Your task to perform on an android device: open app "McDonald's" Image 0: 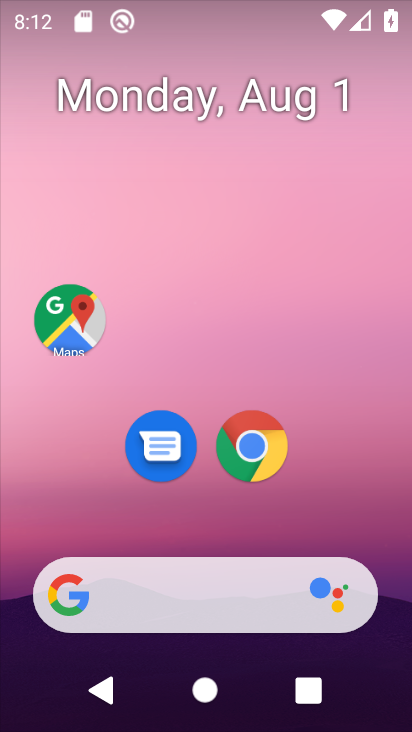
Step 0: drag from (182, 539) to (197, 167)
Your task to perform on an android device: open app "McDonald's" Image 1: 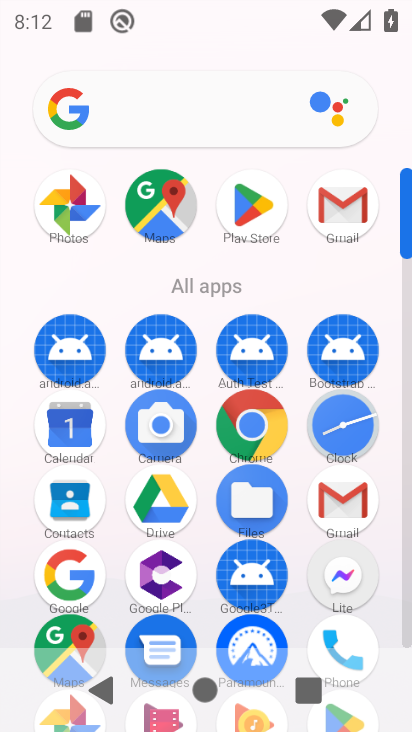
Step 1: click (261, 210)
Your task to perform on an android device: open app "McDonald's" Image 2: 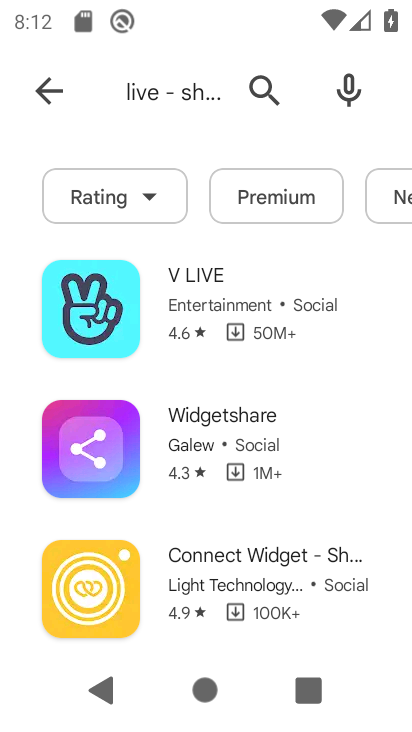
Step 2: click (268, 70)
Your task to perform on an android device: open app "McDonald's" Image 3: 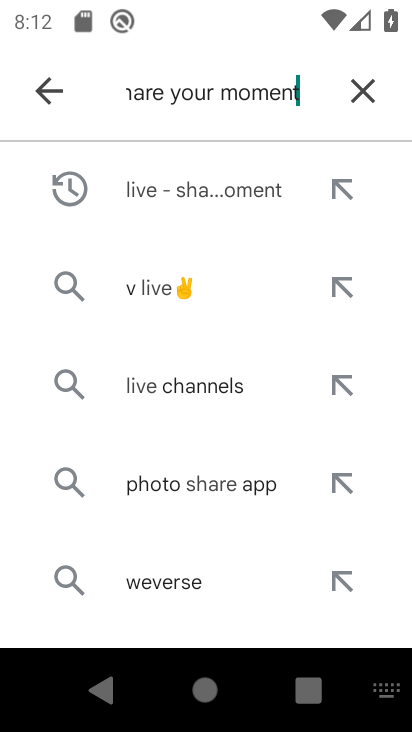
Step 3: click (357, 90)
Your task to perform on an android device: open app "McDonald's" Image 4: 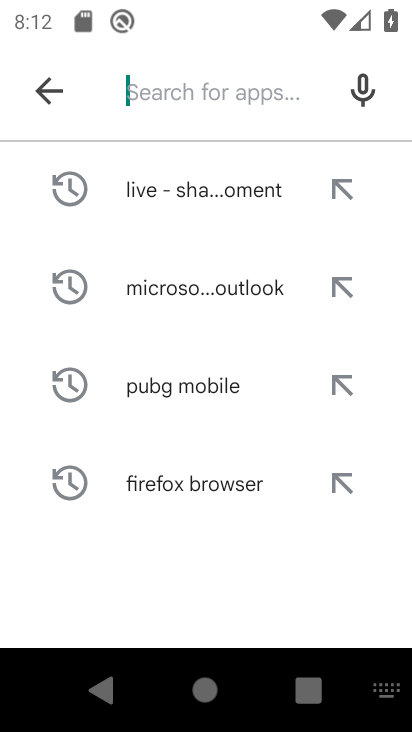
Step 4: type "McDonald's"
Your task to perform on an android device: open app "McDonald's" Image 5: 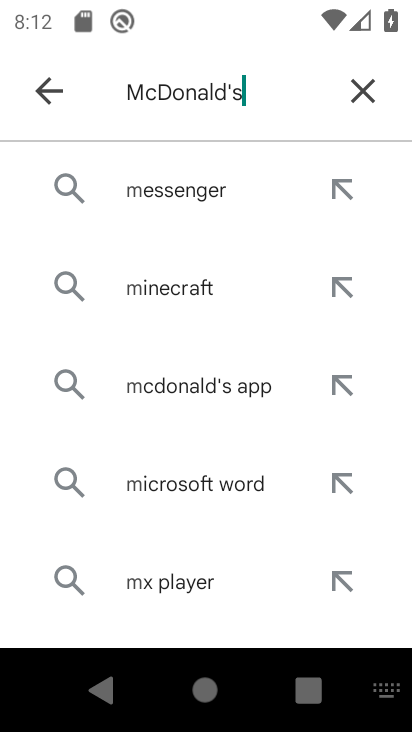
Step 5: type ""
Your task to perform on an android device: open app "McDonald's" Image 6: 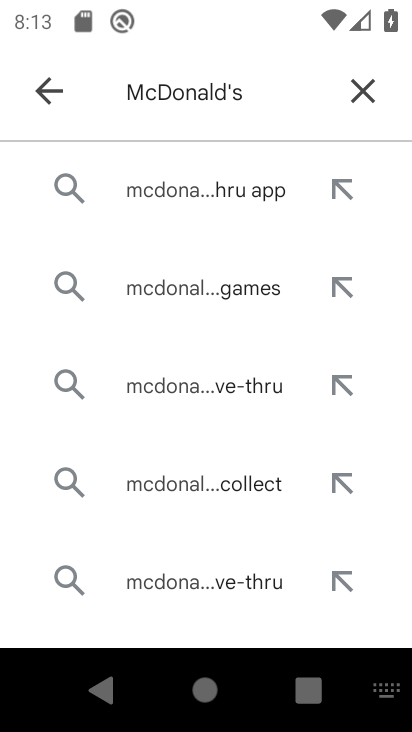
Step 6: click (215, 182)
Your task to perform on an android device: open app "McDonald's" Image 7: 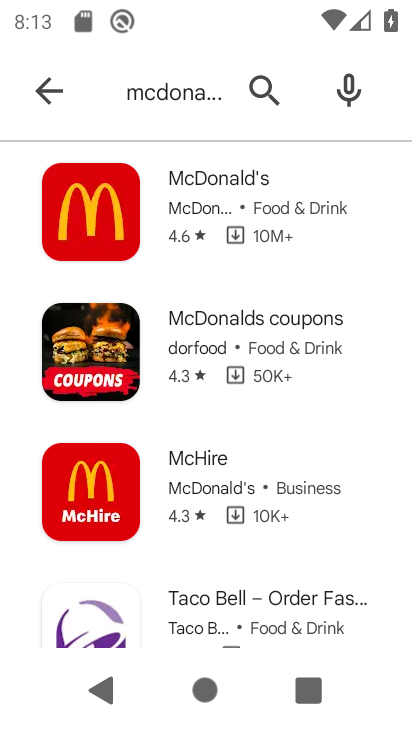
Step 7: click (206, 189)
Your task to perform on an android device: open app "McDonald's" Image 8: 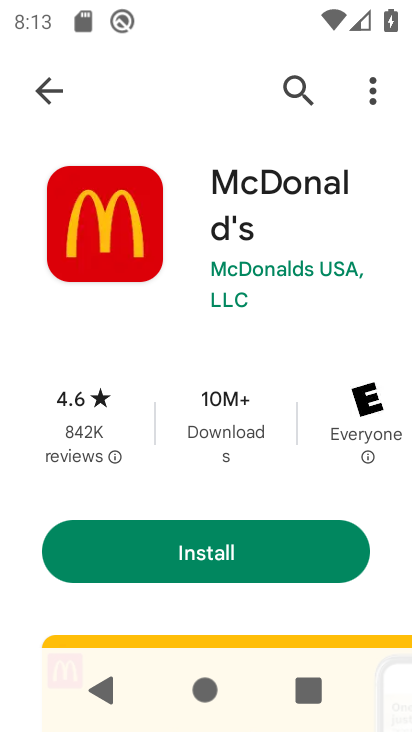
Step 8: task complete